Your task to perform on an android device: toggle notifications settings in the gmail app Image 0: 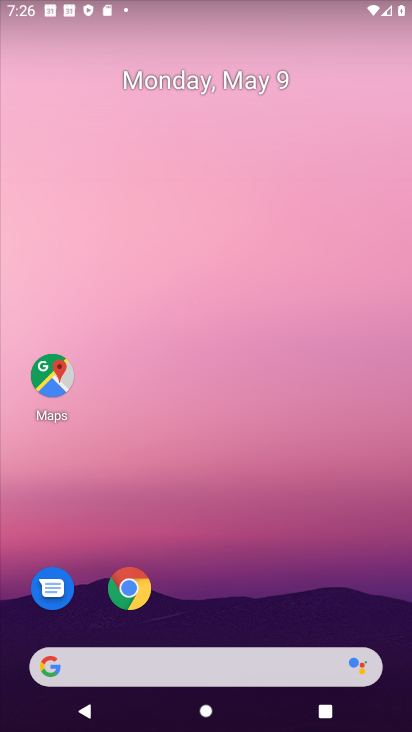
Step 0: press home button
Your task to perform on an android device: toggle notifications settings in the gmail app Image 1: 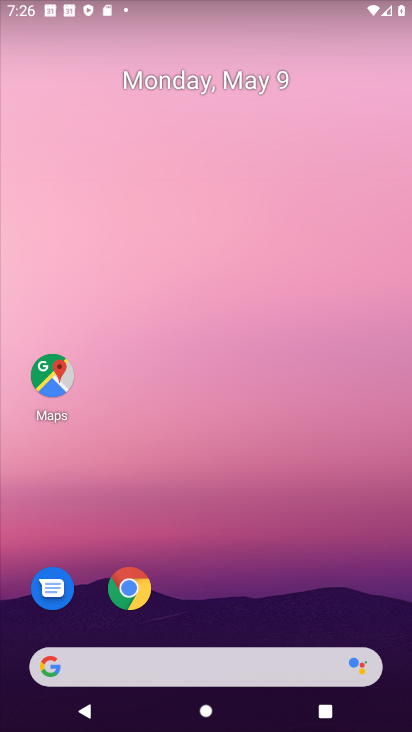
Step 1: drag from (178, 657) to (383, 89)
Your task to perform on an android device: toggle notifications settings in the gmail app Image 2: 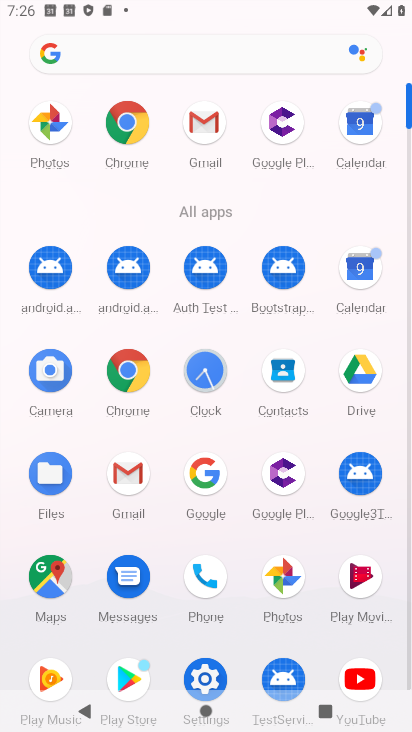
Step 2: click (203, 121)
Your task to perform on an android device: toggle notifications settings in the gmail app Image 3: 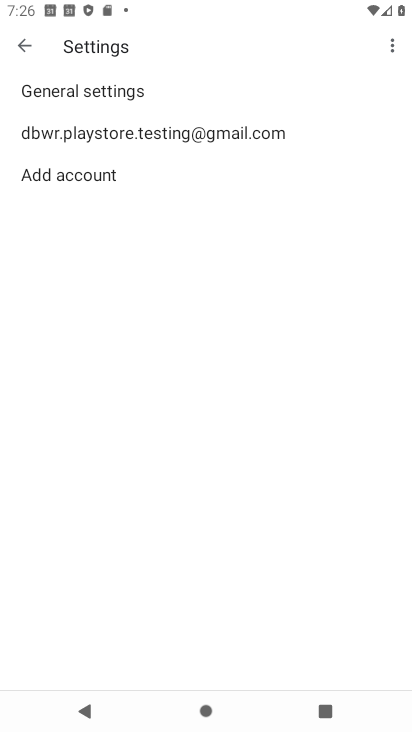
Step 3: click (180, 133)
Your task to perform on an android device: toggle notifications settings in the gmail app Image 4: 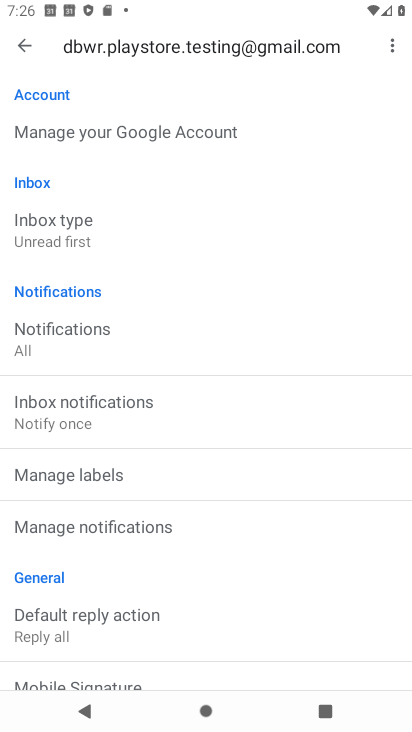
Step 4: click (74, 337)
Your task to perform on an android device: toggle notifications settings in the gmail app Image 5: 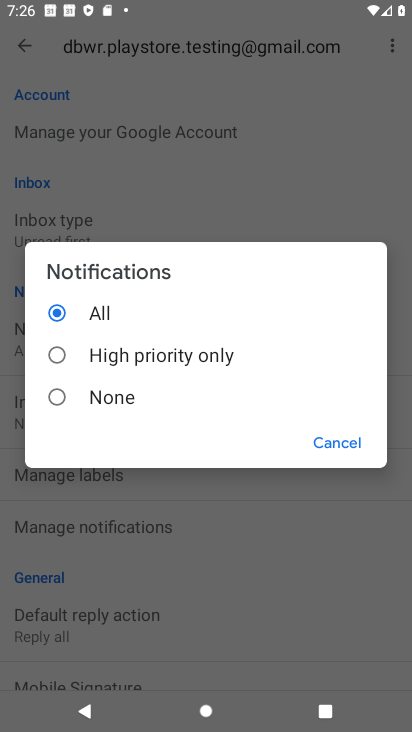
Step 5: click (52, 400)
Your task to perform on an android device: toggle notifications settings in the gmail app Image 6: 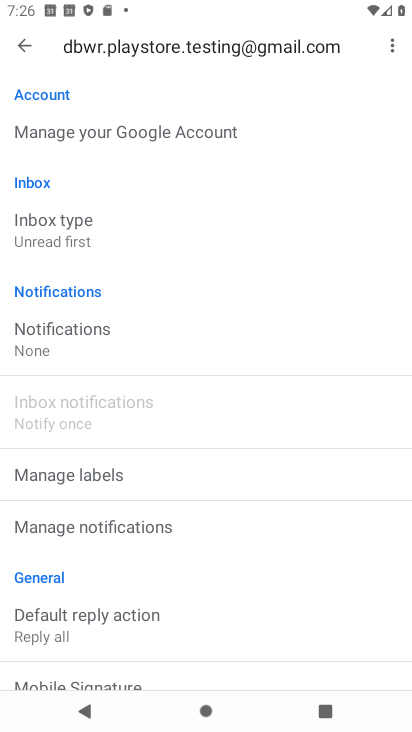
Step 6: task complete